Your task to perform on an android device: Open Yahoo.com Image 0: 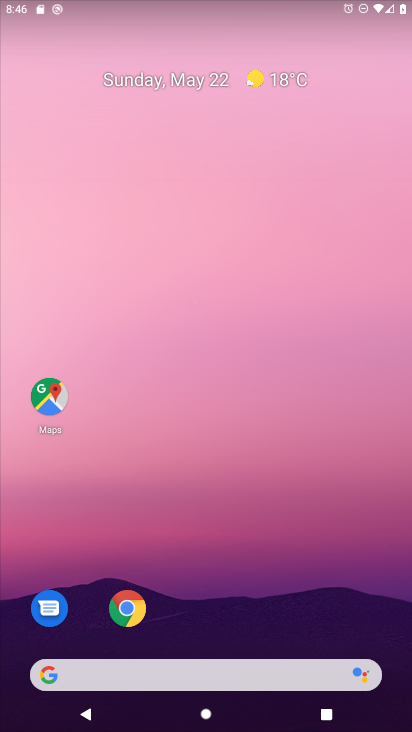
Step 0: click (125, 612)
Your task to perform on an android device: Open Yahoo.com Image 1: 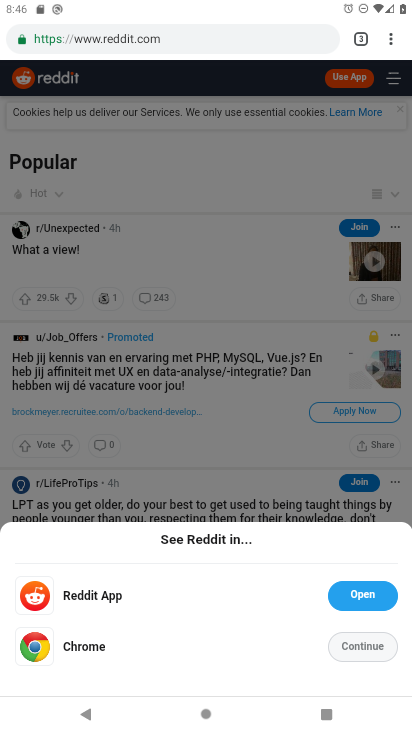
Step 1: click (391, 44)
Your task to perform on an android device: Open Yahoo.com Image 2: 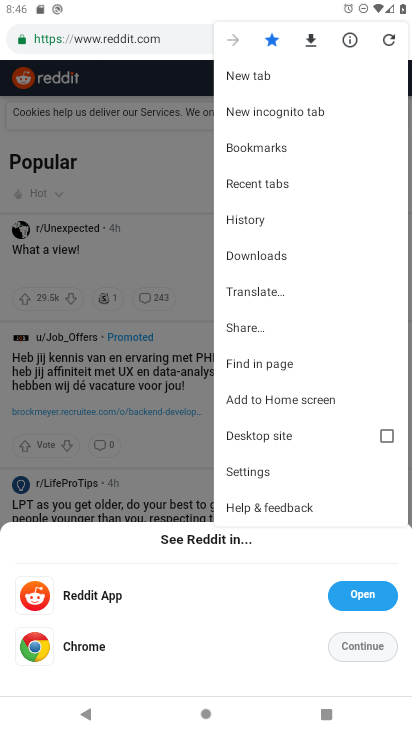
Step 2: click (244, 69)
Your task to perform on an android device: Open Yahoo.com Image 3: 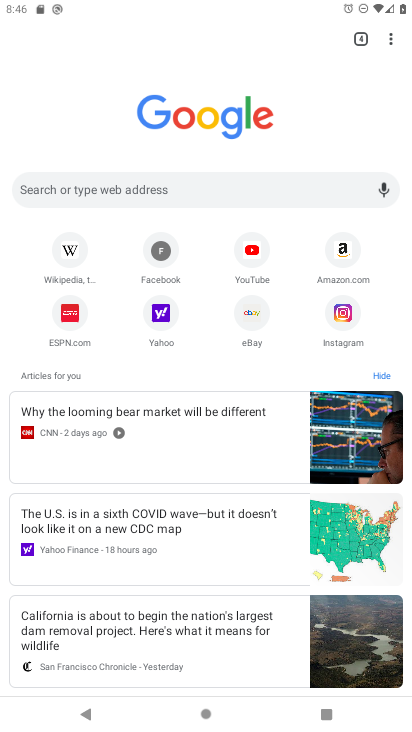
Step 3: click (158, 310)
Your task to perform on an android device: Open Yahoo.com Image 4: 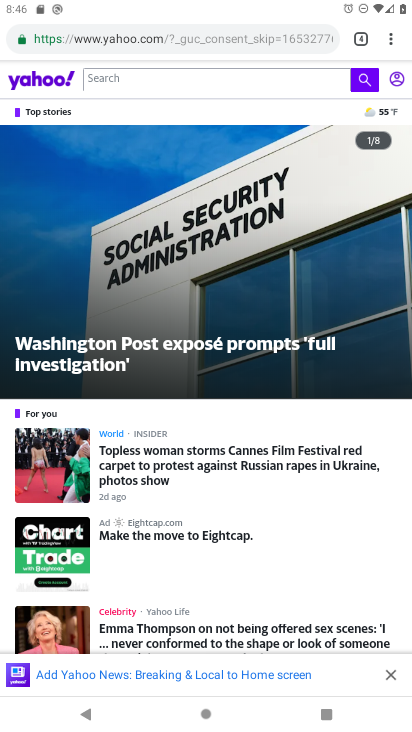
Step 4: task complete